Your task to perform on an android device: Open the phone app and click the voicemail tab. Image 0: 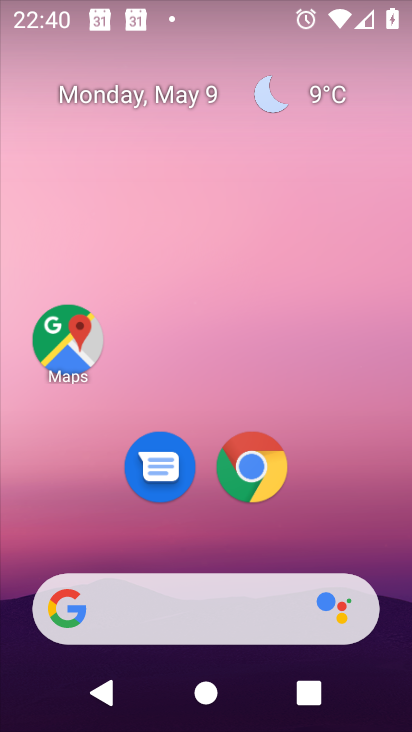
Step 0: drag from (384, 532) to (361, 21)
Your task to perform on an android device: Open the phone app and click the voicemail tab. Image 1: 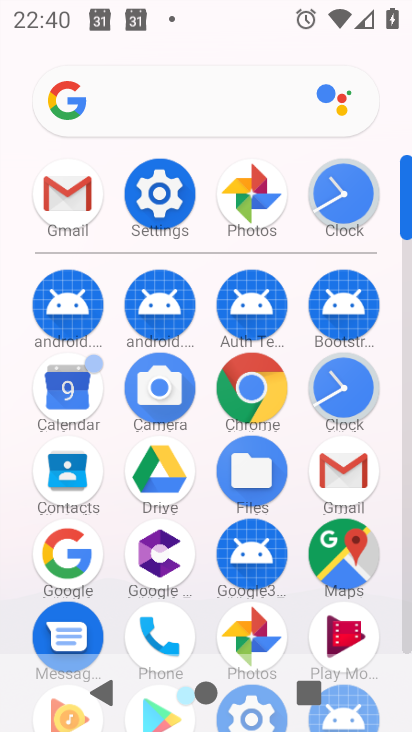
Step 1: click (152, 611)
Your task to perform on an android device: Open the phone app and click the voicemail tab. Image 2: 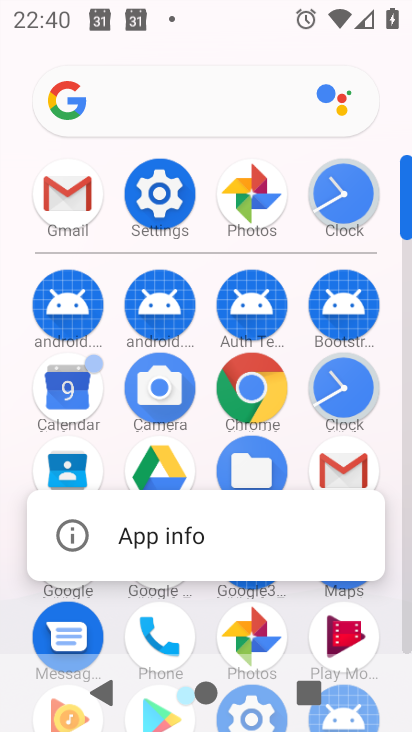
Step 2: click (153, 620)
Your task to perform on an android device: Open the phone app and click the voicemail tab. Image 3: 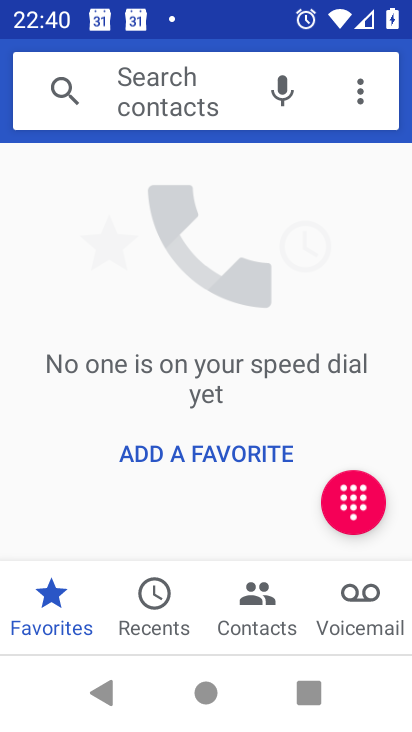
Step 3: click (365, 617)
Your task to perform on an android device: Open the phone app and click the voicemail tab. Image 4: 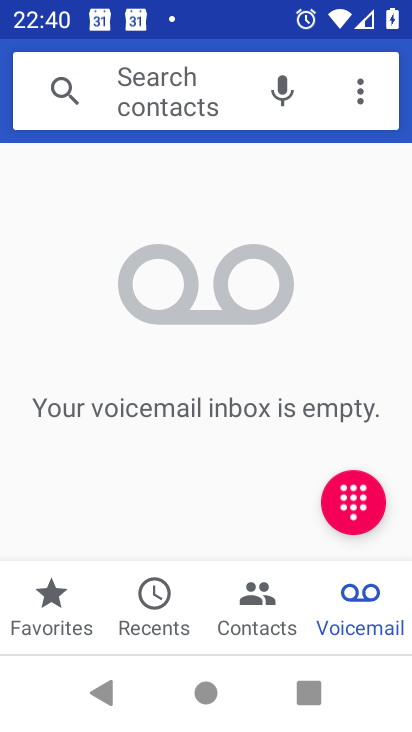
Step 4: task complete